Your task to perform on an android device: stop showing notifications on the lock screen Image 0: 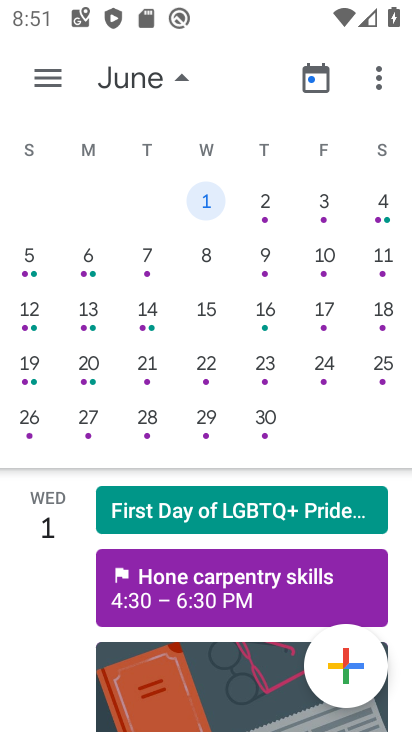
Step 0: press home button
Your task to perform on an android device: stop showing notifications on the lock screen Image 1: 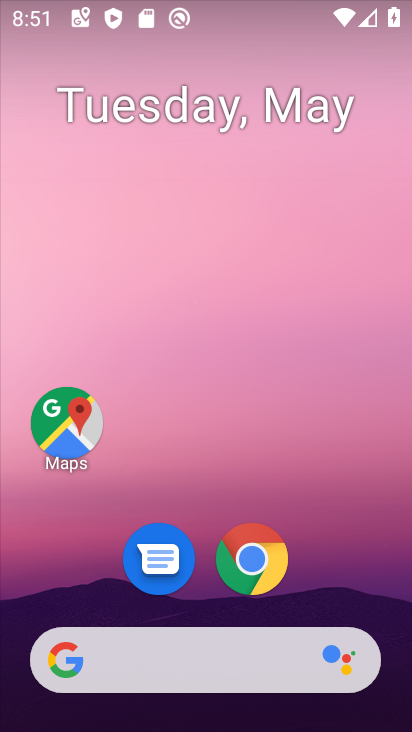
Step 1: drag from (335, 582) to (296, 0)
Your task to perform on an android device: stop showing notifications on the lock screen Image 2: 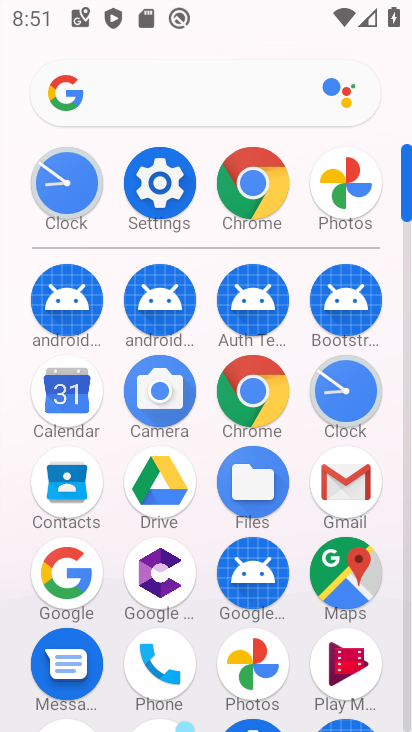
Step 2: click (161, 172)
Your task to perform on an android device: stop showing notifications on the lock screen Image 3: 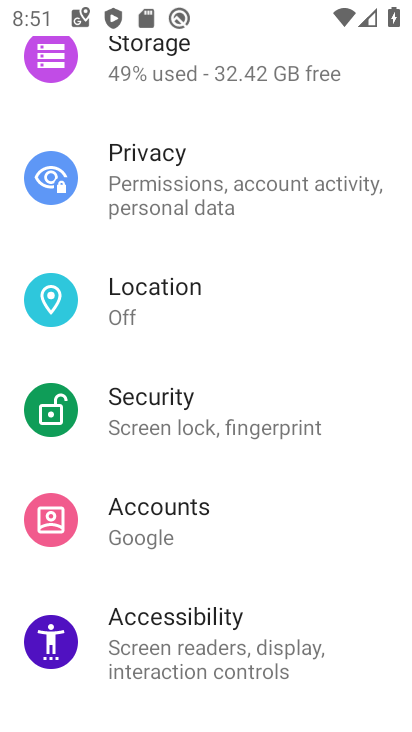
Step 3: drag from (236, 203) to (280, 639)
Your task to perform on an android device: stop showing notifications on the lock screen Image 4: 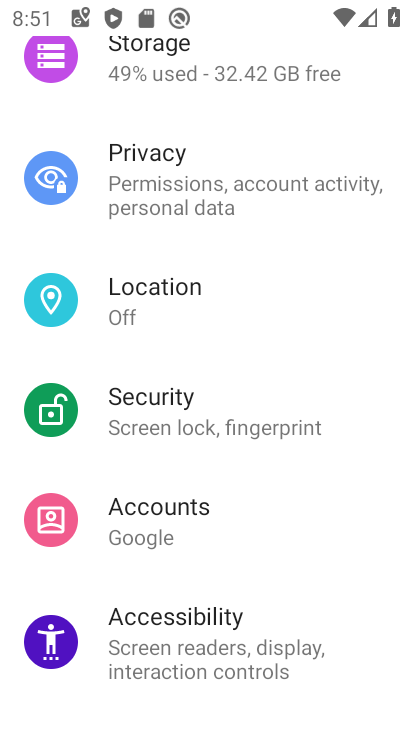
Step 4: drag from (144, 215) to (172, 681)
Your task to perform on an android device: stop showing notifications on the lock screen Image 5: 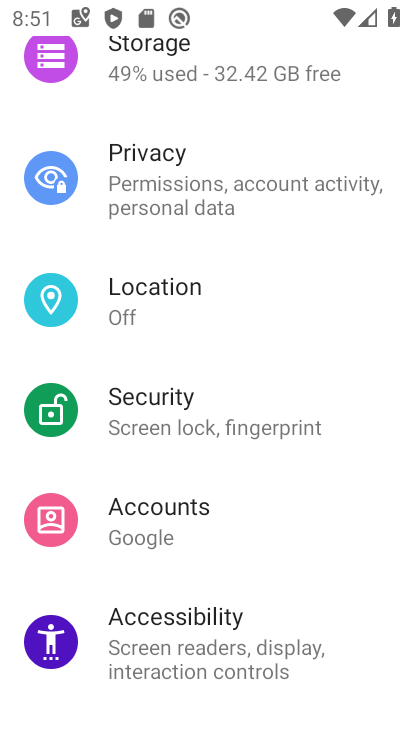
Step 5: drag from (210, 235) to (273, 685)
Your task to perform on an android device: stop showing notifications on the lock screen Image 6: 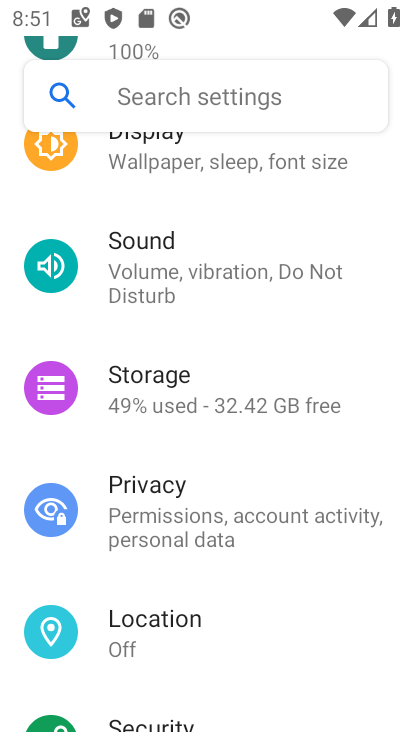
Step 6: drag from (244, 269) to (251, 648)
Your task to perform on an android device: stop showing notifications on the lock screen Image 7: 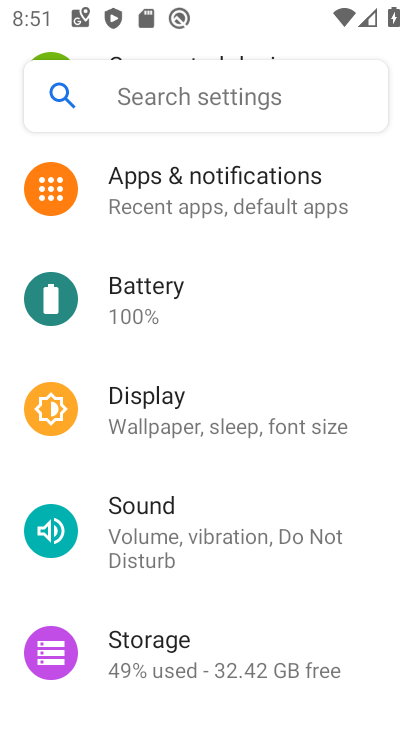
Step 7: click (259, 203)
Your task to perform on an android device: stop showing notifications on the lock screen Image 8: 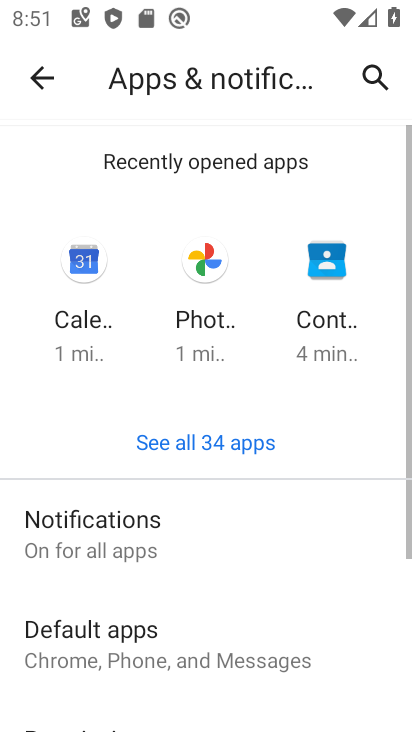
Step 8: click (137, 523)
Your task to perform on an android device: stop showing notifications on the lock screen Image 9: 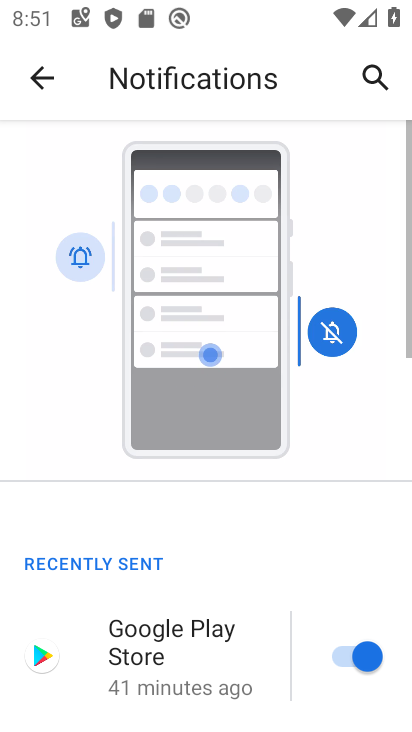
Step 9: drag from (164, 660) to (203, 261)
Your task to perform on an android device: stop showing notifications on the lock screen Image 10: 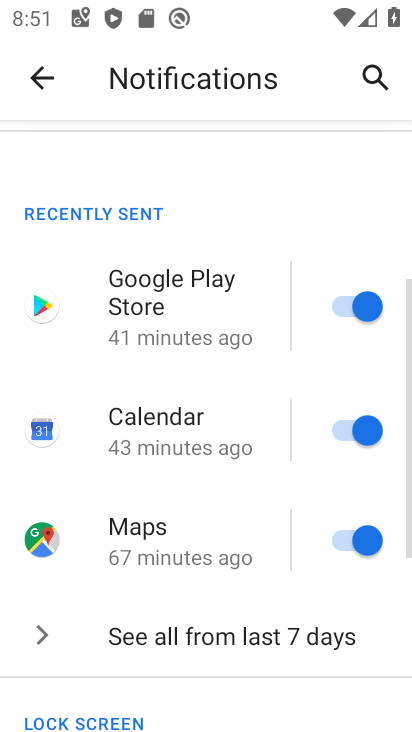
Step 10: drag from (225, 649) to (183, 199)
Your task to perform on an android device: stop showing notifications on the lock screen Image 11: 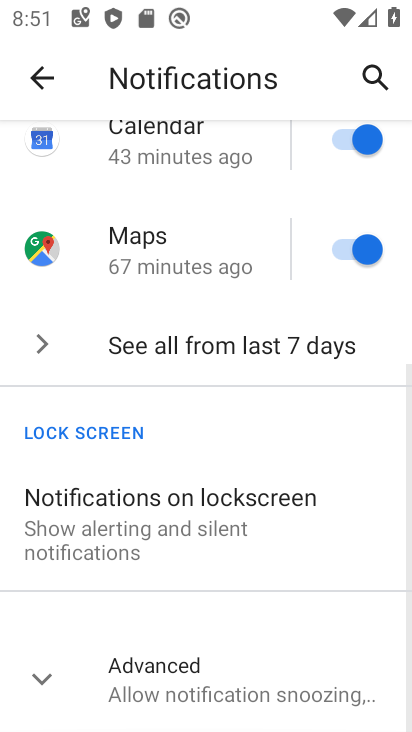
Step 11: drag from (203, 590) to (148, 247)
Your task to perform on an android device: stop showing notifications on the lock screen Image 12: 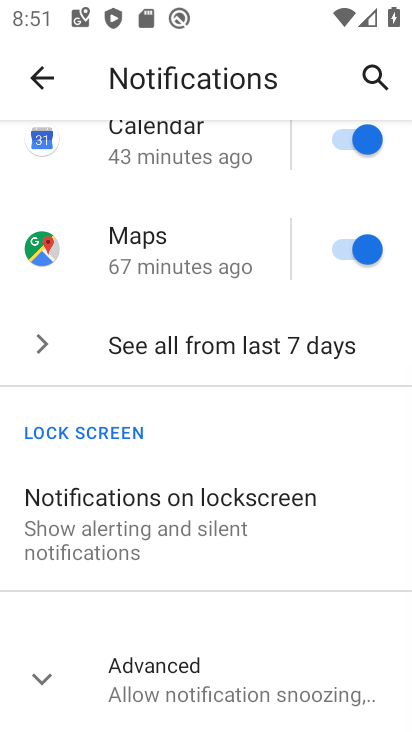
Step 12: click (145, 532)
Your task to perform on an android device: stop showing notifications on the lock screen Image 13: 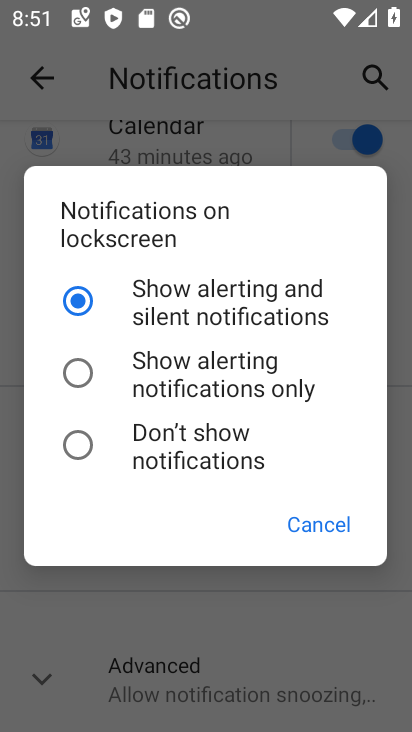
Step 13: click (96, 444)
Your task to perform on an android device: stop showing notifications on the lock screen Image 14: 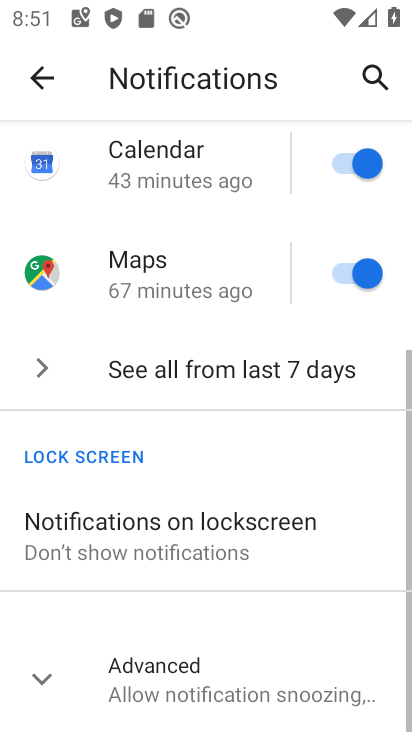
Step 14: task complete